Your task to perform on an android device: create a new album in the google photos Image 0: 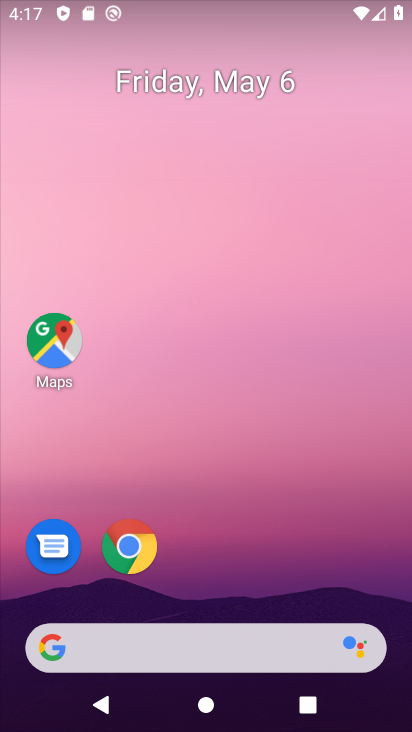
Step 0: drag from (221, 547) to (207, 91)
Your task to perform on an android device: create a new album in the google photos Image 1: 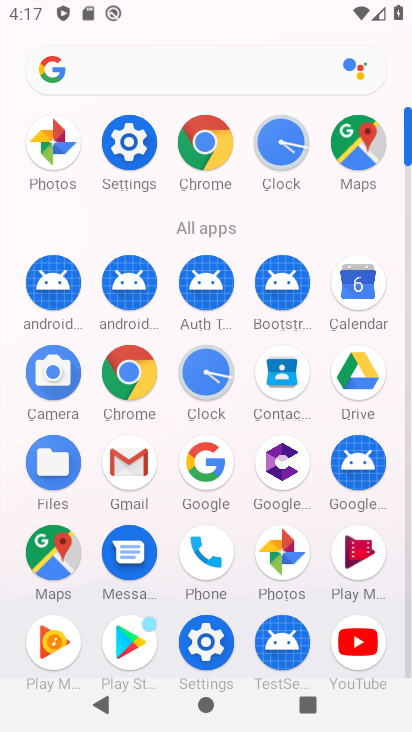
Step 1: click (45, 144)
Your task to perform on an android device: create a new album in the google photos Image 2: 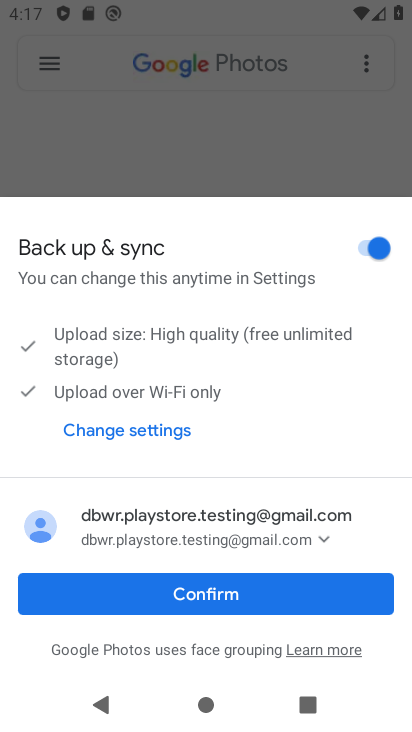
Step 2: click (322, 579)
Your task to perform on an android device: create a new album in the google photos Image 3: 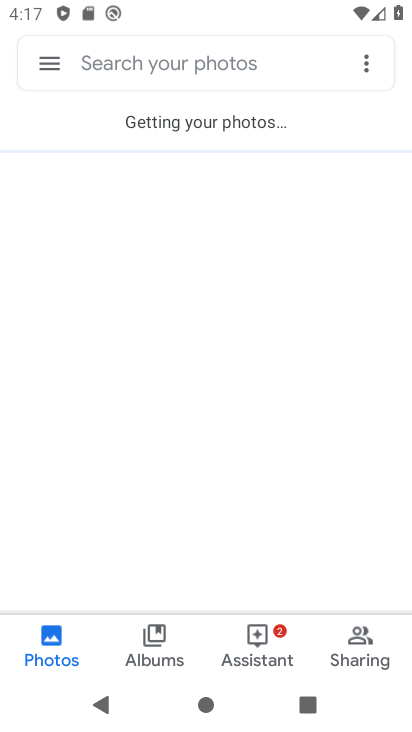
Step 3: click (168, 628)
Your task to perform on an android device: create a new album in the google photos Image 4: 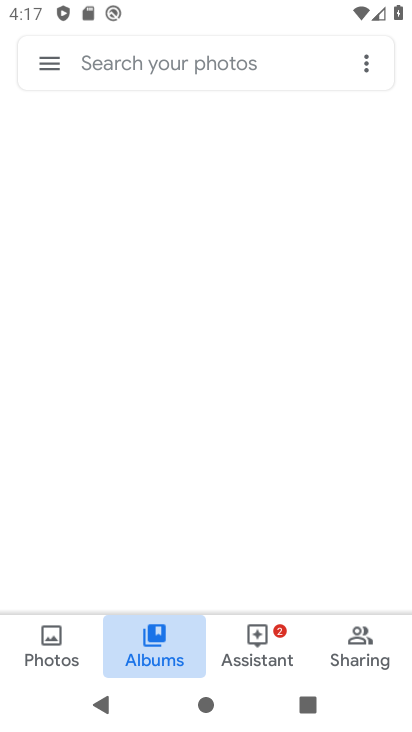
Step 4: click (364, 67)
Your task to perform on an android device: create a new album in the google photos Image 5: 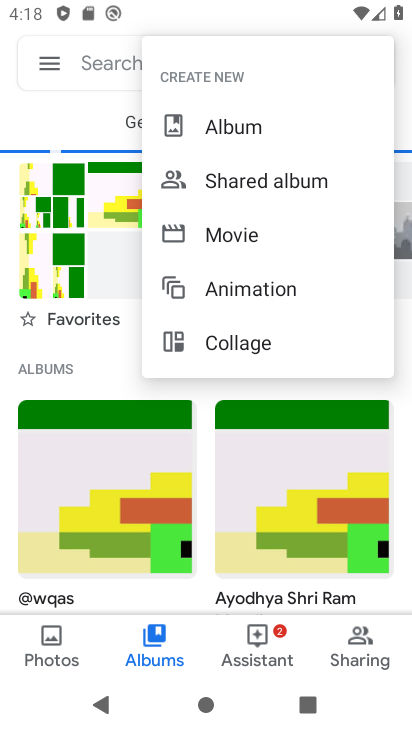
Step 5: click (199, 123)
Your task to perform on an android device: create a new album in the google photos Image 6: 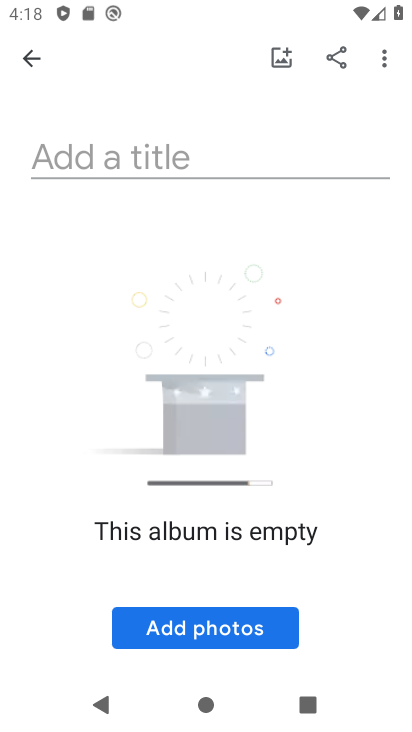
Step 6: click (201, 152)
Your task to perform on an android device: create a new album in the google photos Image 7: 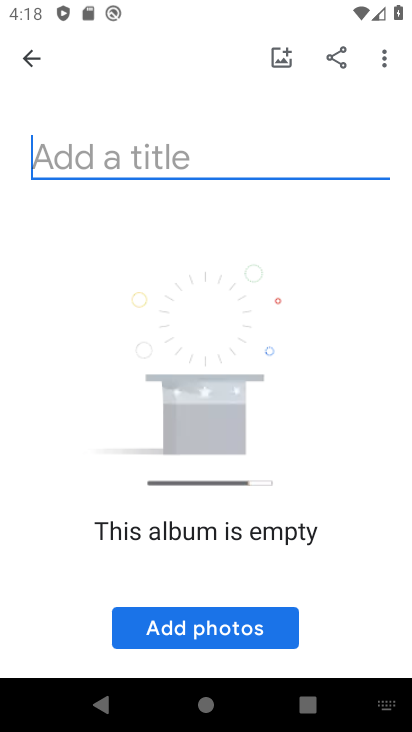
Step 7: type "jgghh"
Your task to perform on an android device: create a new album in the google photos Image 8: 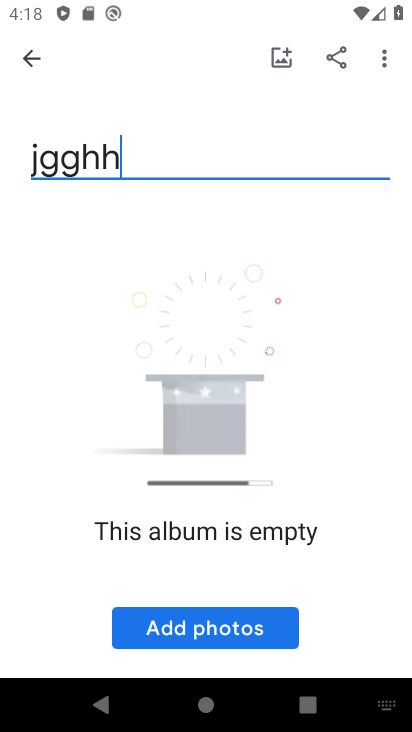
Step 8: click (242, 626)
Your task to perform on an android device: create a new album in the google photos Image 9: 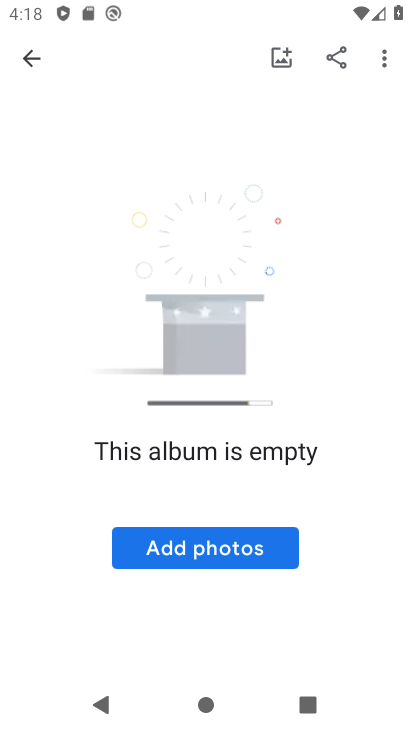
Step 9: click (240, 529)
Your task to perform on an android device: create a new album in the google photos Image 10: 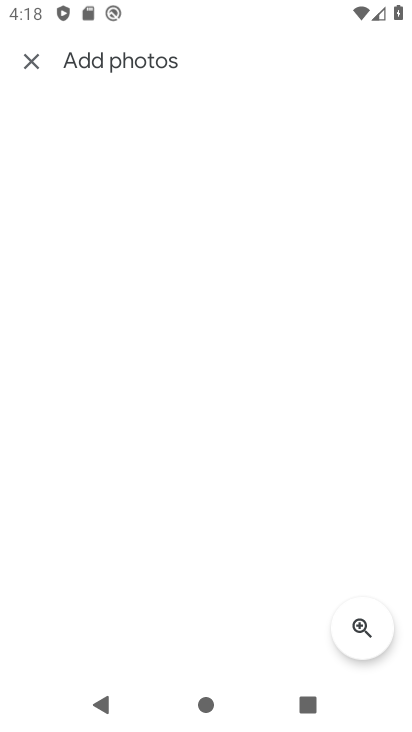
Step 10: click (31, 64)
Your task to perform on an android device: create a new album in the google photos Image 11: 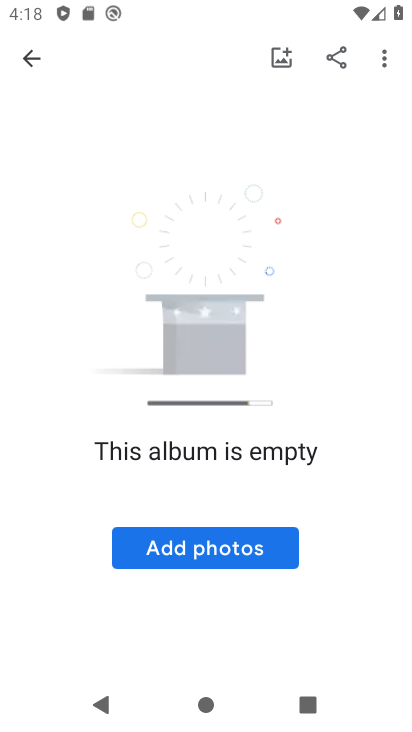
Step 11: click (36, 62)
Your task to perform on an android device: create a new album in the google photos Image 12: 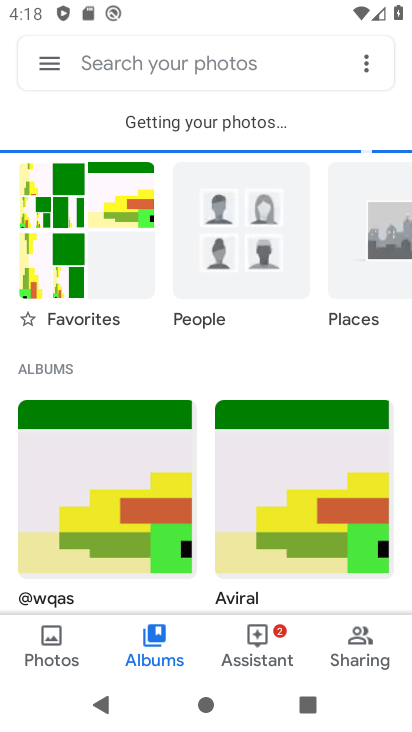
Step 12: click (366, 63)
Your task to perform on an android device: create a new album in the google photos Image 13: 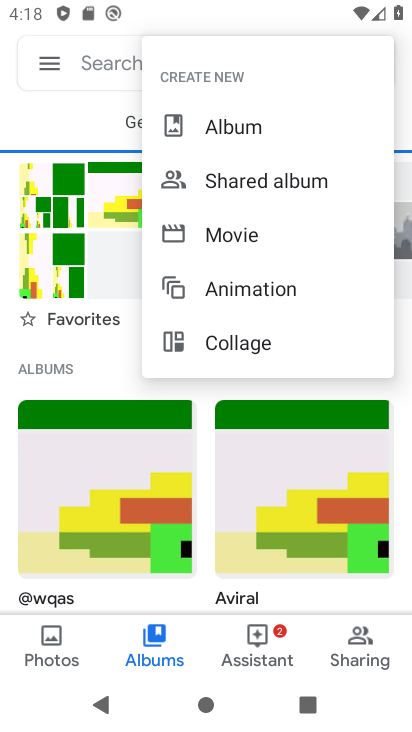
Step 13: click (294, 115)
Your task to perform on an android device: create a new album in the google photos Image 14: 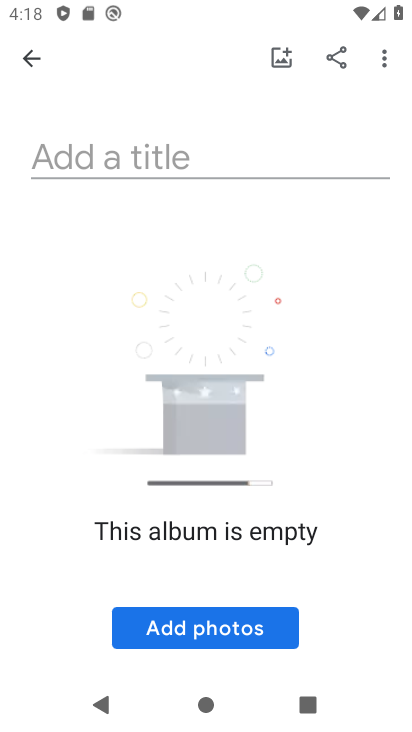
Step 14: type "jhvu"
Your task to perform on an android device: create a new album in the google photos Image 15: 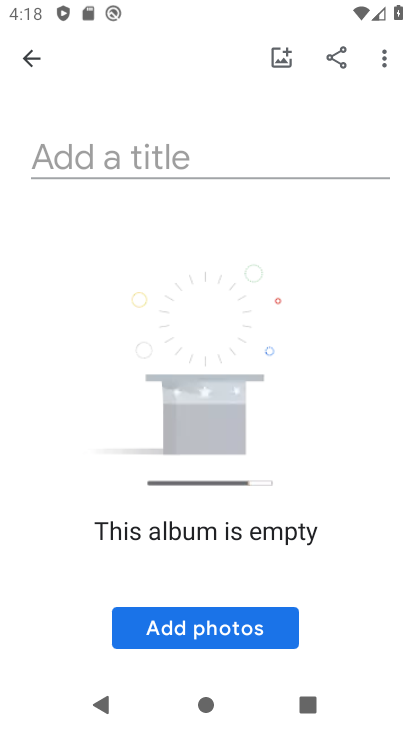
Step 15: click (232, 163)
Your task to perform on an android device: create a new album in the google photos Image 16: 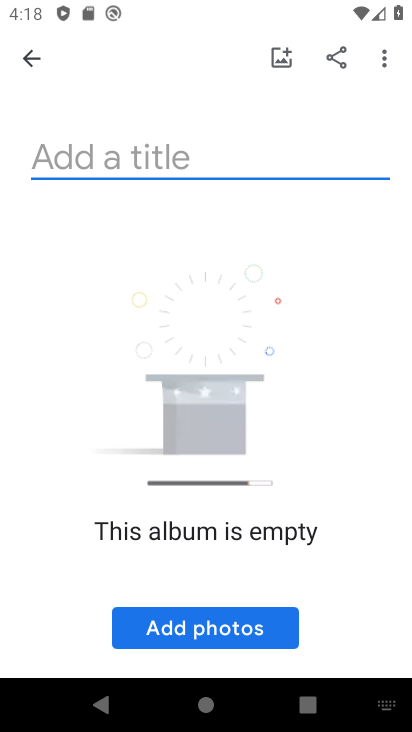
Step 16: type "jkvb"
Your task to perform on an android device: create a new album in the google photos Image 17: 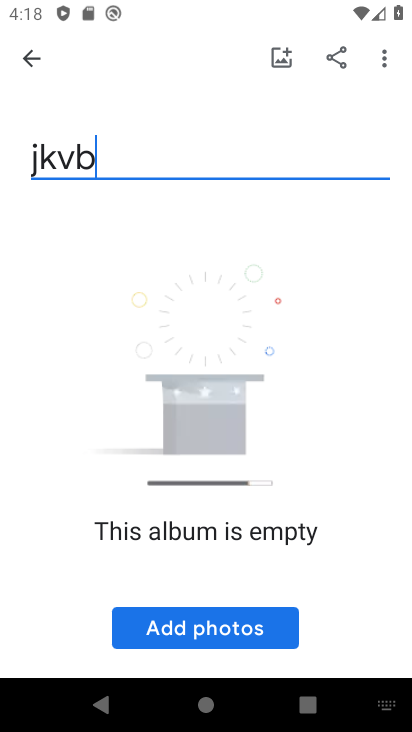
Step 17: click (252, 616)
Your task to perform on an android device: create a new album in the google photos Image 18: 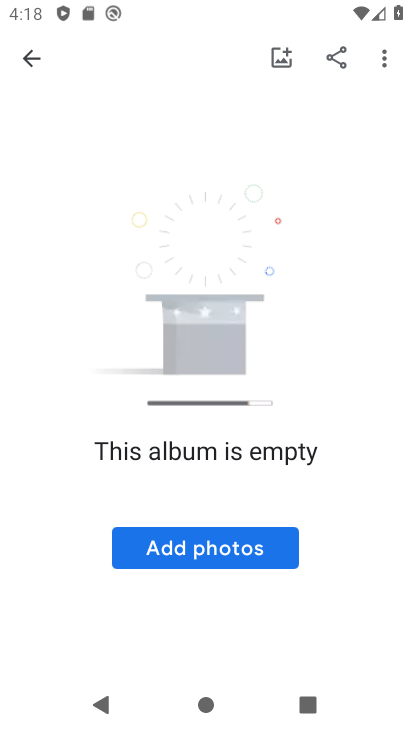
Step 18: click (198, 554)
Your task to perform on an android device: create a new album in the google photos Image 19: 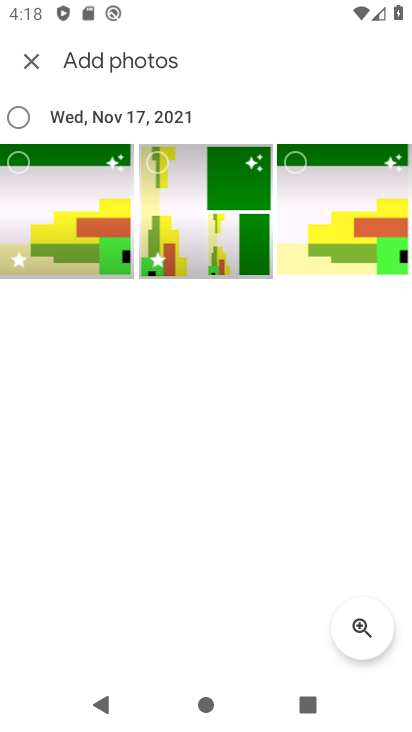
Step 19: click (82, 196)
Your task to perform on an android device: create a new album in the google photos Image 20: 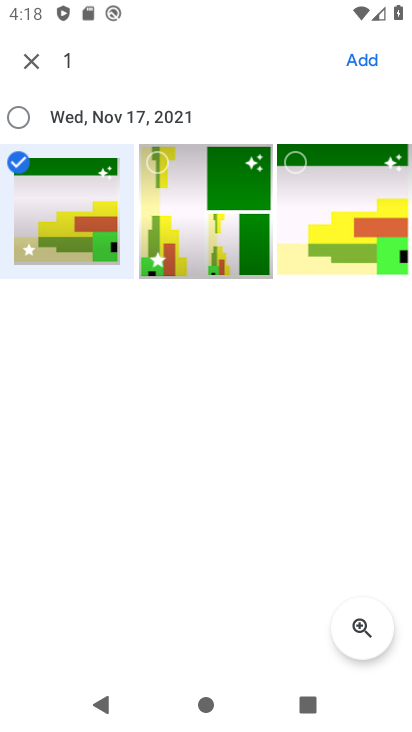
Step 20: task complete